Your task to perform on an android device: set the stopwatch Image 0: 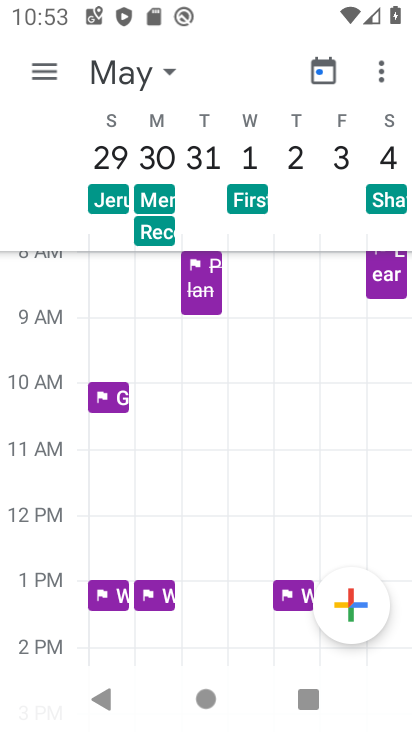
Step 0: press home button
Your task to perform on an android device: set the stopwatch Image 1: 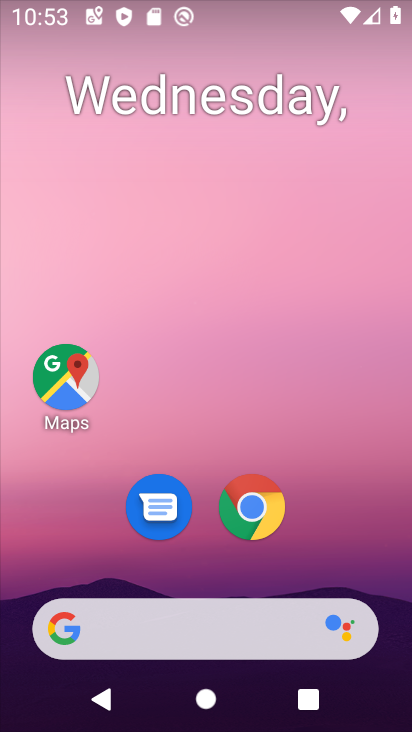
Step 1: drag from (230, 728) to (244, 108)
Your task to perform on an android device: set the stopwatch Image 2: 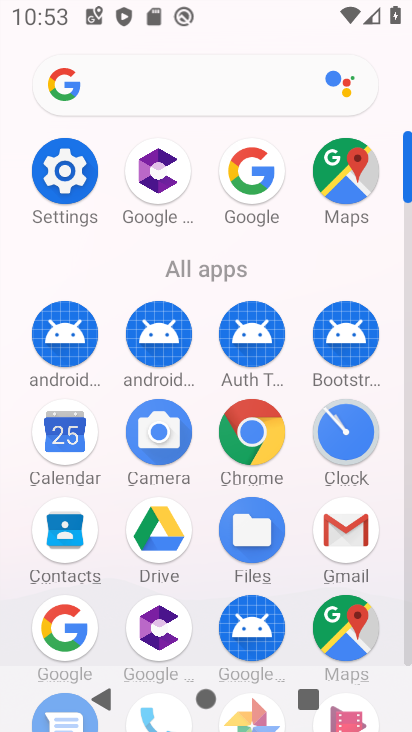
Step 2: click (353, 437)
Your task to perform on an android device: set the stopwatch Image 3: 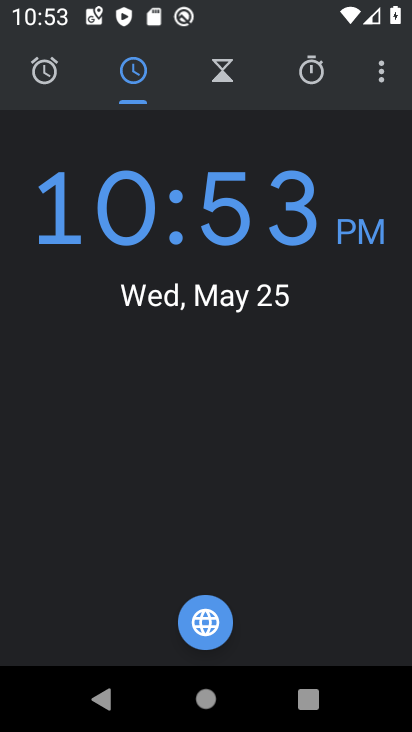
Step 3: click (300, 69)
Your task to perform on an android device: set the stopwatch Image 4: 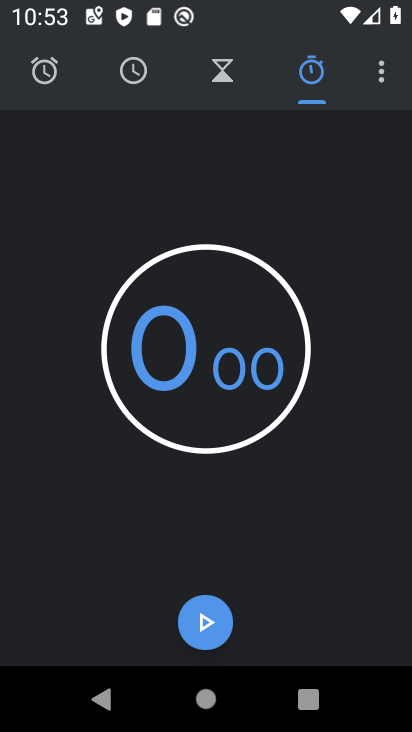
Step 4: click (223, 386)
Your task to perform on an android device: set the stopwatch Image 5: 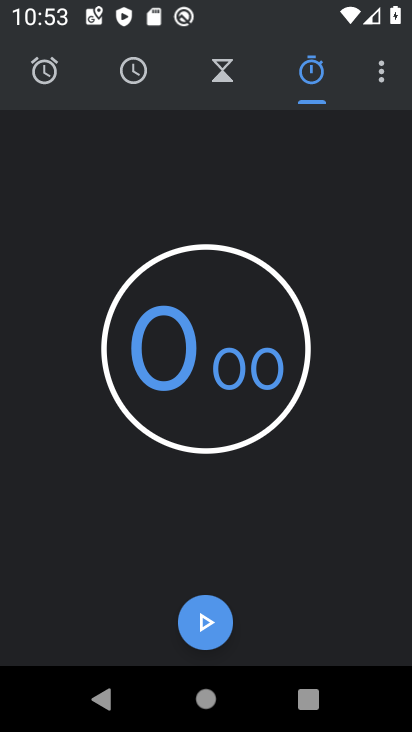
Step 5: type "898"
Your task to perform on an android device: set the stopwatch Image 6: 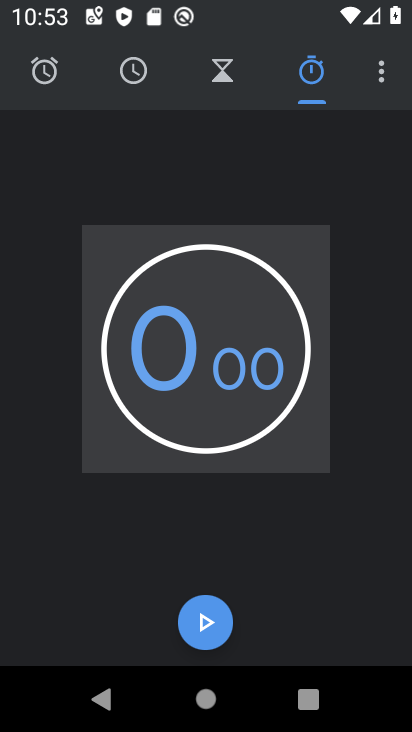
Step 6: click (222, 363)
Your task to perform on an android device: set the stopwatch Image 7: 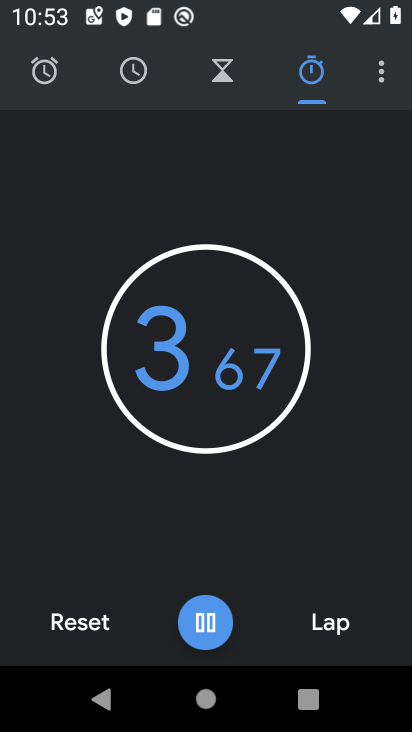
Step 7: type "88"
Your task to perform on an android device: set the stopwatch Image 8: 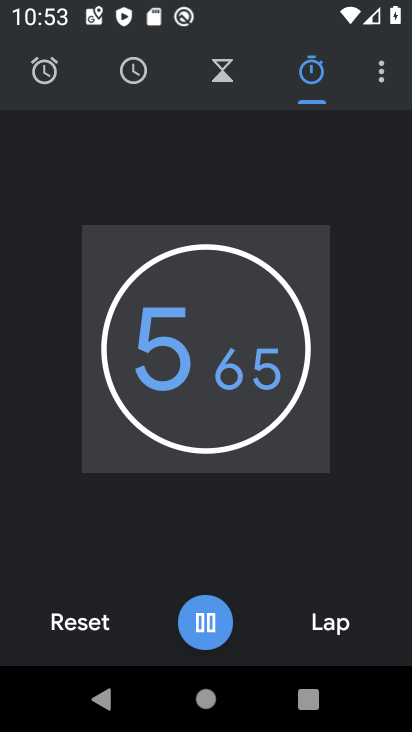
Step 8: task complete